Your task to perform on an android device: turn off notifications settings in the gmail app Image 0: 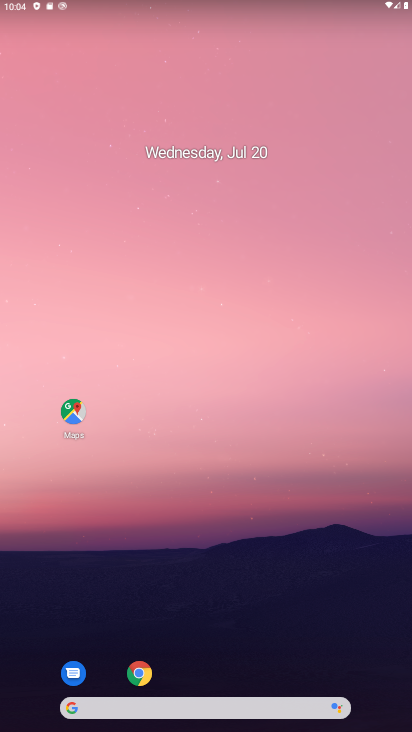
Step 0: drag from (238, 654) to (205, 176)
Your task to perform on an android device: turn off notifications settings in the gmail app Image 1: 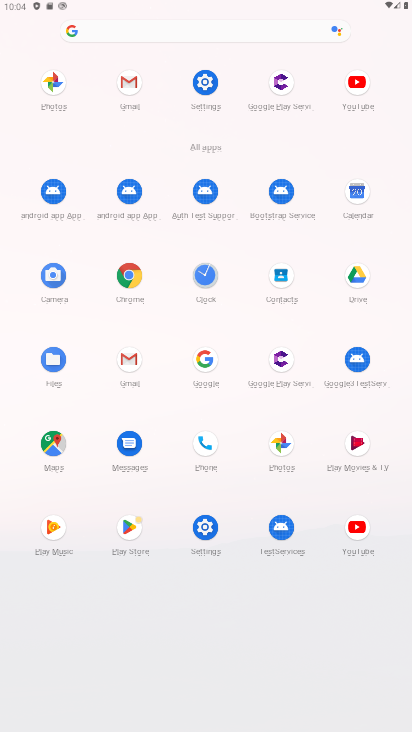
Step 1: click (130, 355)
Your task to perform on an android device: turn off notifications settings in the gmail app Image 2: 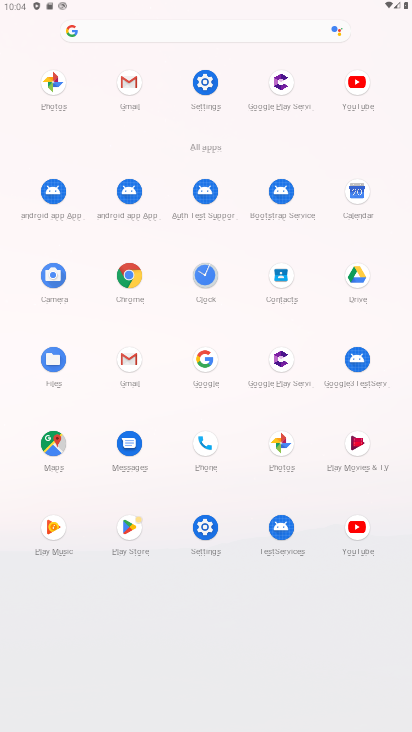
Step 2: click (131, 356)
Your task to perform on an android device: turn off notifications settings in the gmail app Image 3: 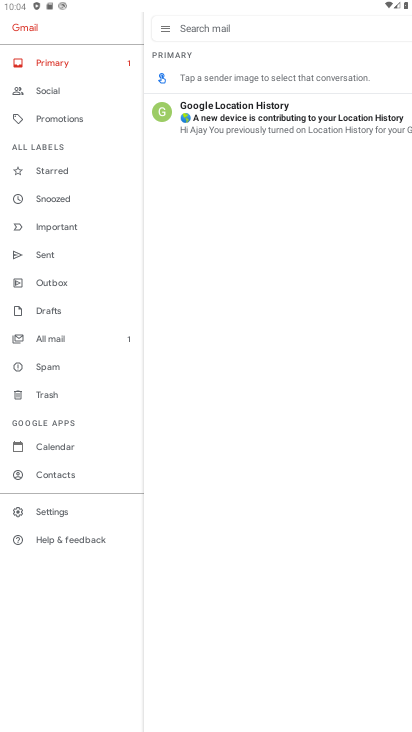
Step 3: click (140, 353)
Your task to perform on an android device: turn off notifications settings in the gmail app Image 4: 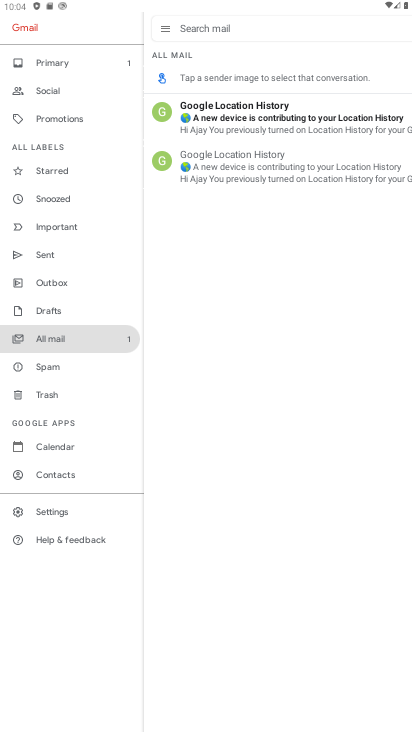
Step 4: click (58, 510)
Your task to perform on an android device: turn off notifications settings in the gmail app Image 5: 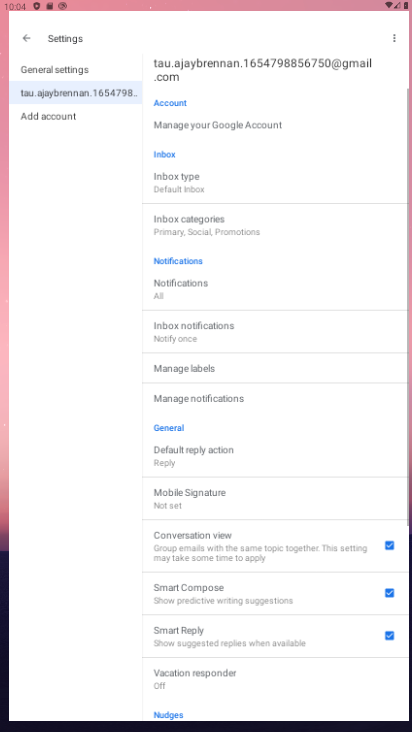
Step 5: click (58, 506)
Your task to perform on an android device: turn off notifications settings in the gmail app Image 6: 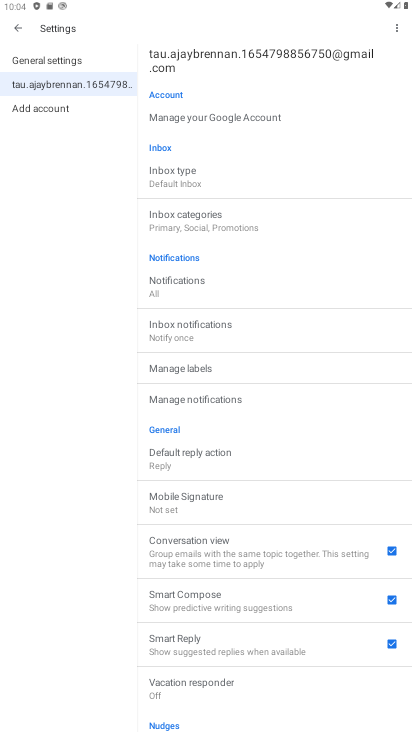
Step 6: click (185, 284)
Your task to perform on an android device: turn off notifications settings in the gmail app Image 7: 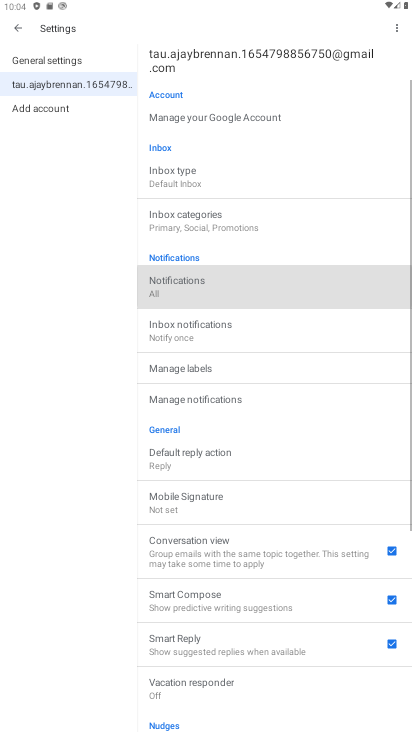
Step 7: click (184, 284)
Your task to perform on an android device: turn off notifications settings in the gmail app Image 8: 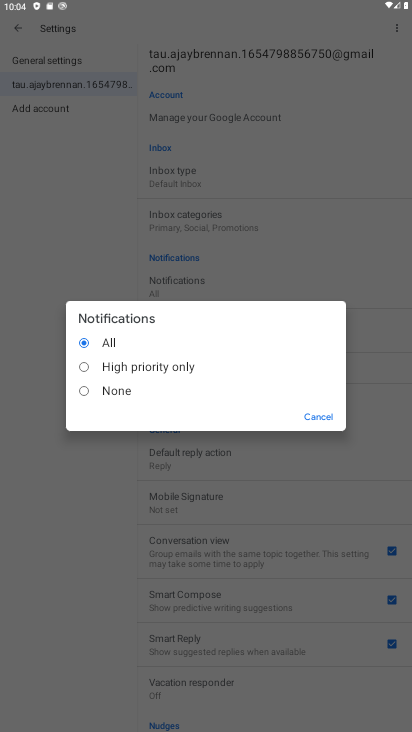
Step 8: click (96, 367)
Your task to perform on an android device: turn off notifications settings in the gmail app Image 9: 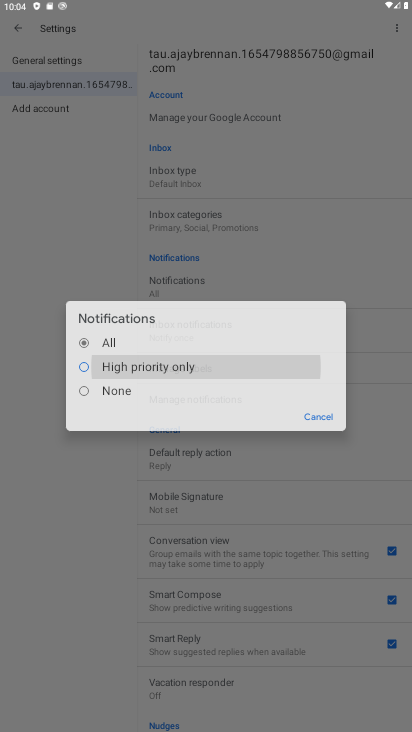
Step 9: click (95, 367)
Your task to perform on an android device: turn off notifications settings in the gmail app Image 10: 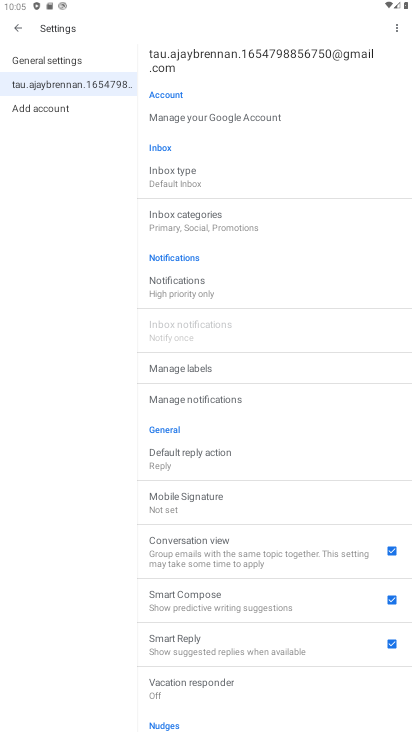
Step 10: task complete